Your task to perform on an android device: Turn on the flashlight Image 0: 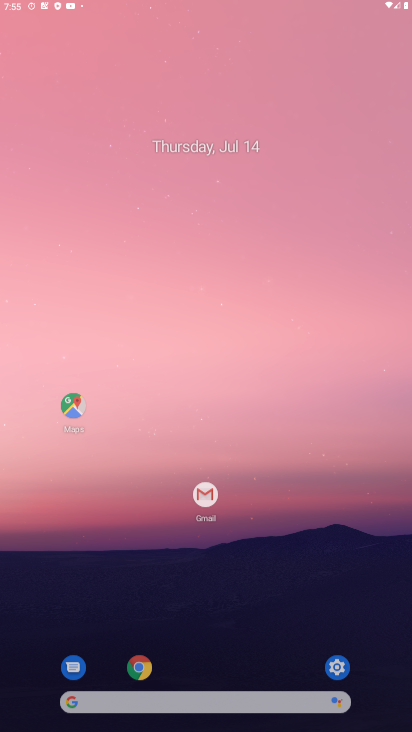
Step 0: press home button
Your task to perform on an android device: Turn on the flashlight Image 1: 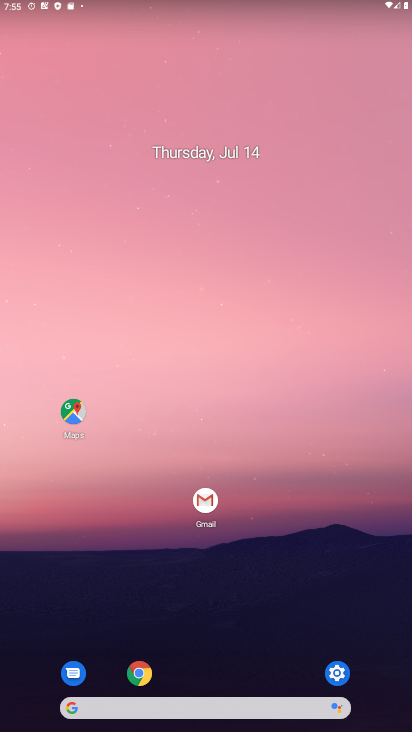
Step 1: click (343, 658)
Your task to perform on an android device: Turn on the flashlight Image 2: 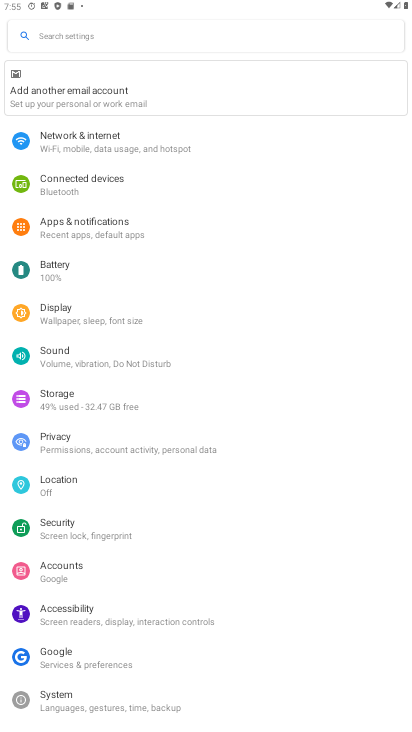
Step 2: click (73, 32)
Your task to perform on an android device: Turn on the flashlight Image 3: 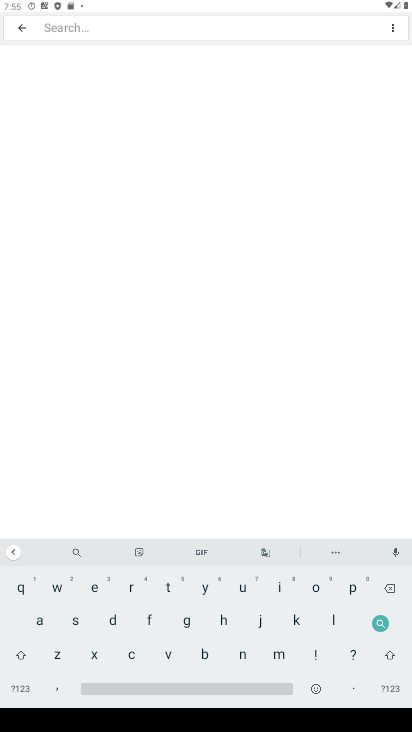
Step 3: click (146, 619)
Your task to perform on an android device: Turn on the flashlight Image 4: 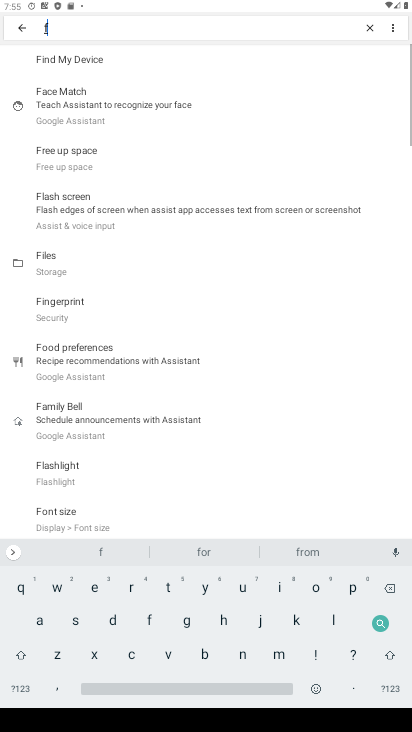
Step 4: click (336, 623)
Your task to perform on an android device: Turn on the flashlight Image 5: 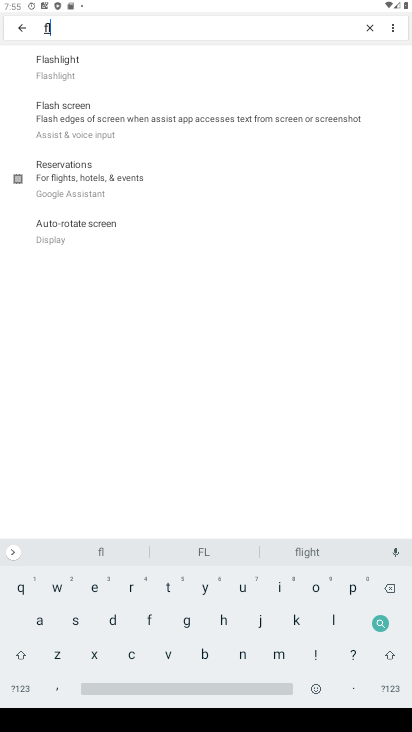
Step 5: click (110, 67)
Your task to perform on an android device: Turn on the flashlight Image 6: 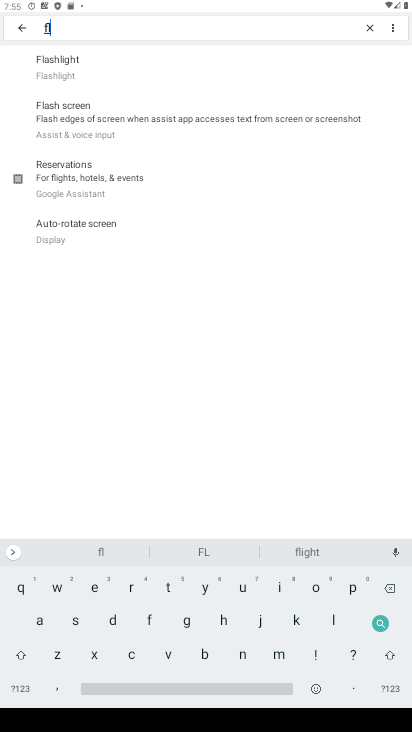
Step 6: click (163, 69)
Your task to perform on an android device: Turn on the flashlight Image 7: 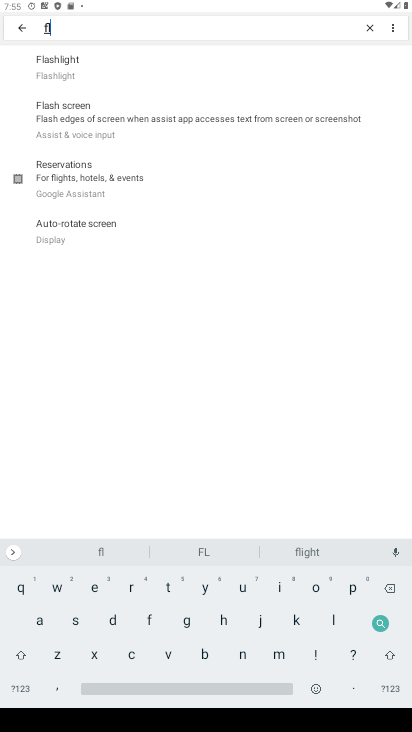
Step 7: task complete